Your task to perform on an android device: turn on priority inbox in the gmail app Image 0: 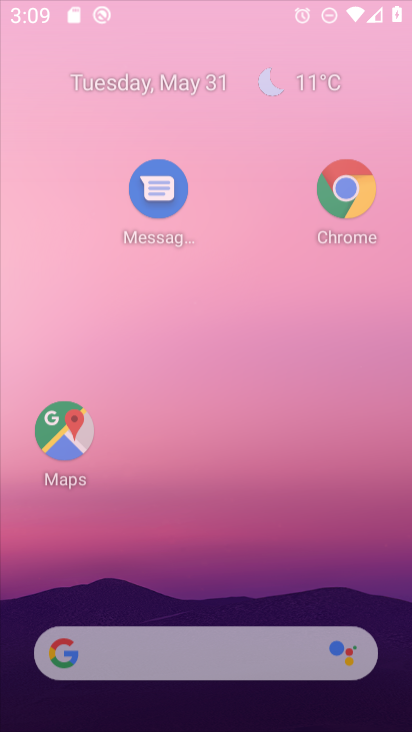
Step 0: click (175, 254)
Your task to perform on an android device: turn on priority inbox in the gmail app Image 1: 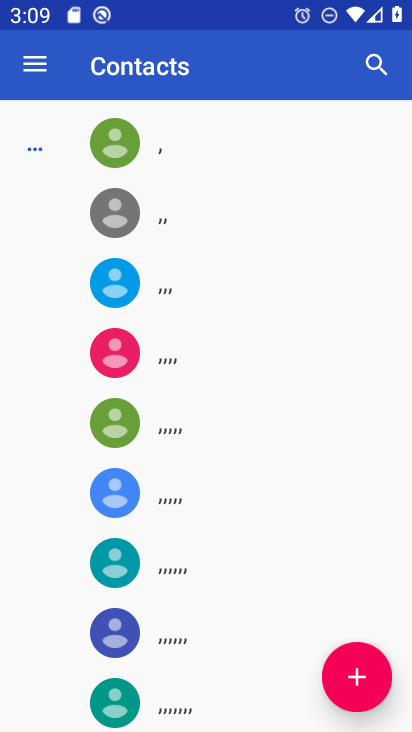
Step 1: press home button
Your task to perform on an android device: turn on priority inbox in the gmail app Image 2: 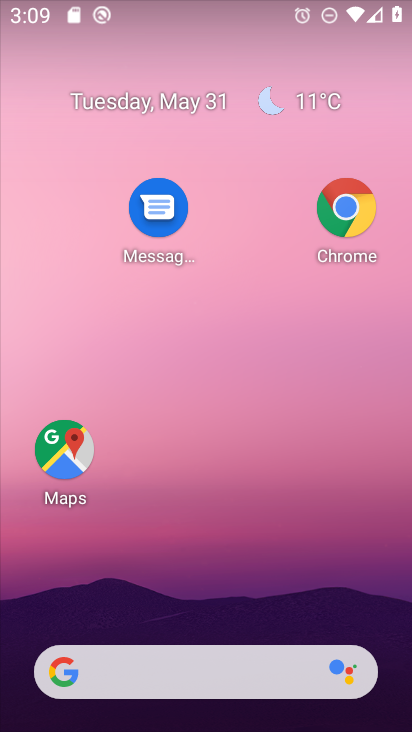
Step 2: drag from (180, 623) to (148, 204)
Your task to perform on an android device: turn on priority inbox in the gmail app Image 3: 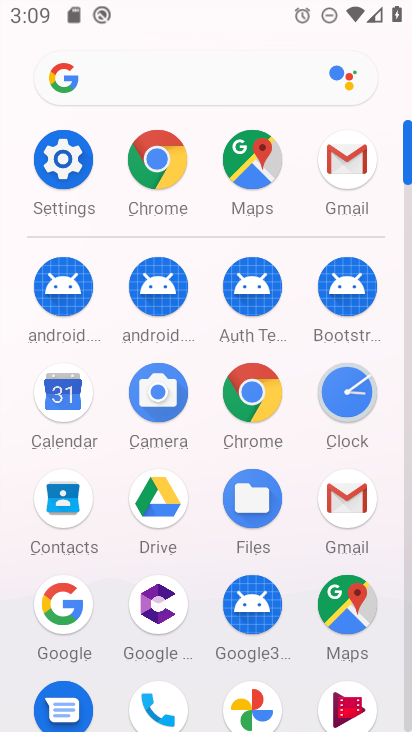
Step 3: click (343, 510)
Your task to perform on an android device: turn on priority inbox in the gmail app Image 4: 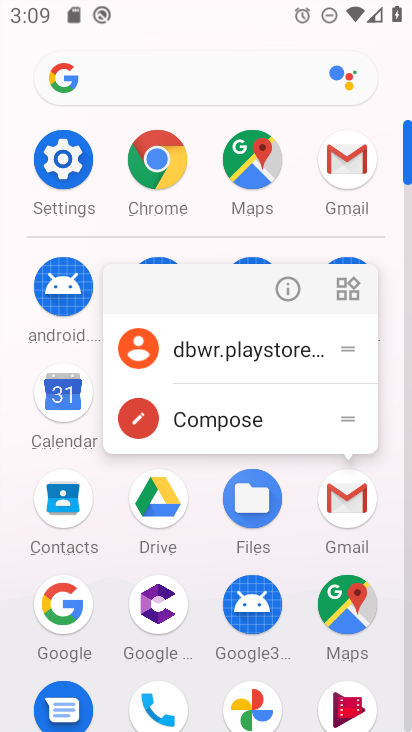
Step 4: click (282, 288)
Your task to perform on an android device: turn on priority inbox in the gmail app Image 5: 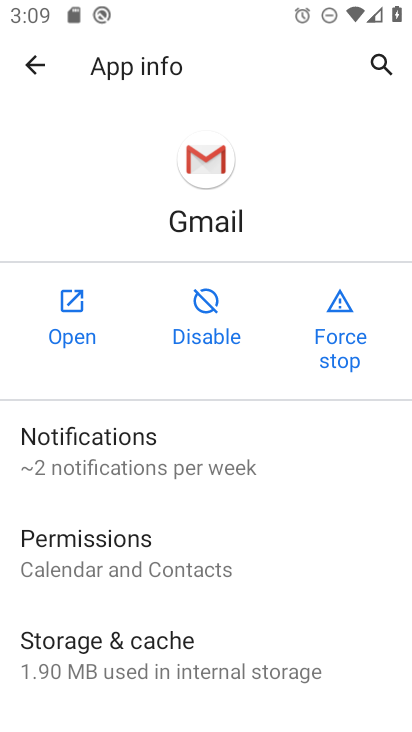
Step 5: click (72, 322)
Your task to perform on an android device: turn on priority inbox in the gmail app Image 6: 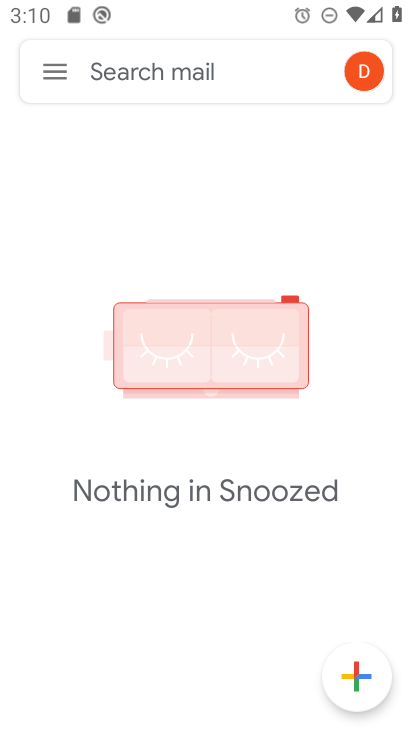
Step 6: drag from (234, 547) to (212, 443)
Your task to perform on an android device: turn on priority inbox in the gmail app Image 7: 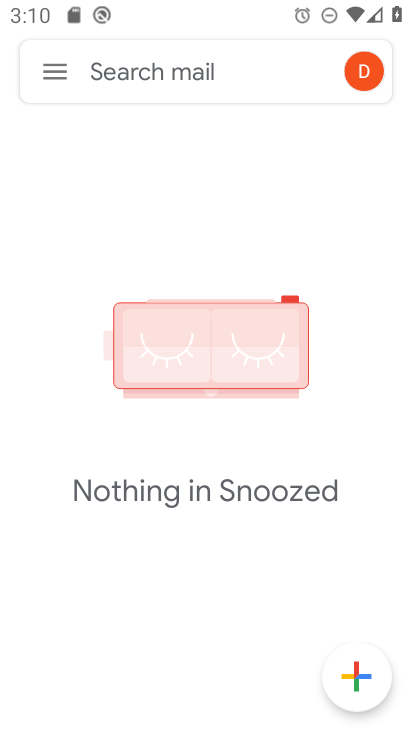
Step 7: click (53, 80)
Your task to perform on an android device: turn on priority inbox in the gmail app Image 8: 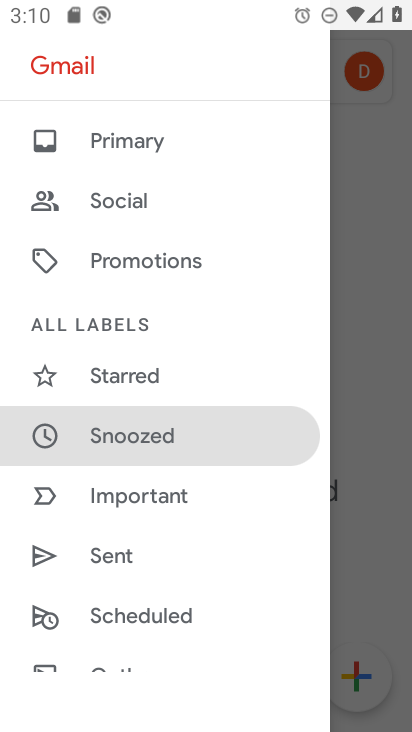
Step 8: drag from (163, 627) to (75, 138)
Your task to perform on an android device: turn on priority inbox in the gmail app Image 9: 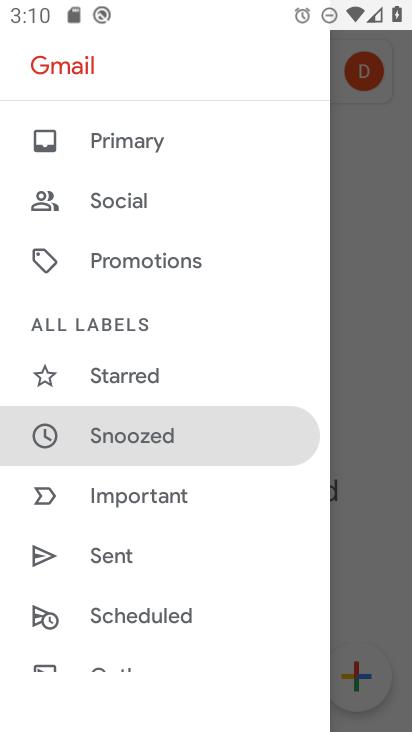
Step 9: drag from (59, 600) to (84, 254)
Your task to perform on an android device: turn on priority inbox in the gmail app Image 10: 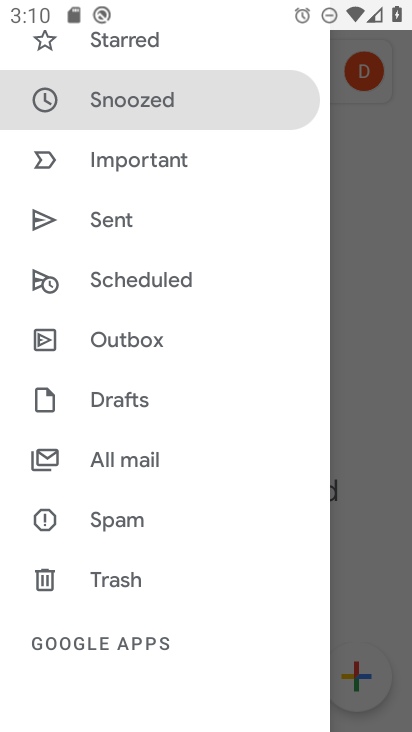
Step 10: drag from (91, 559) to (82, 196)
Your task to perform on an android device: turn on priority inbox in the gmail app Image 11: 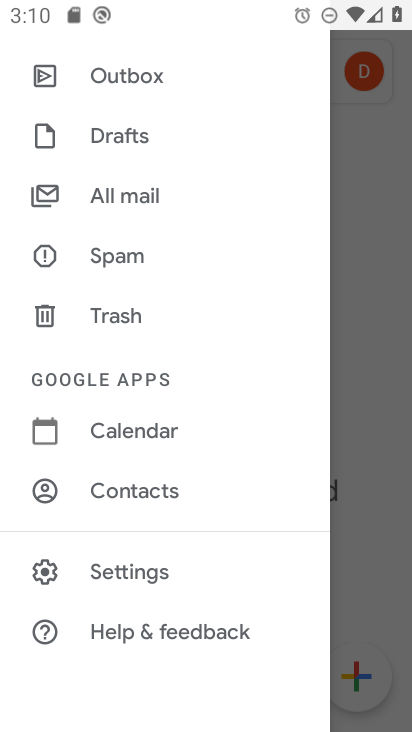
Step 11: click (116, 589)
Your task to perform on an android device: turn on priority inbox in the gmail app Image 12: 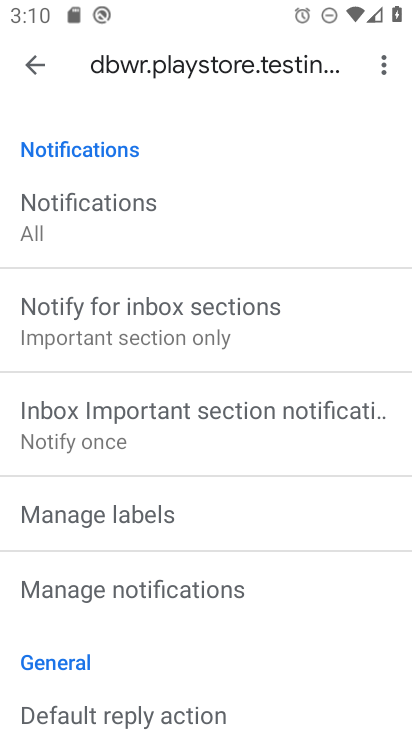
Step 12: drag from (169, 639) to (158, 359)
Your task to perform on an android device: turn on priority inbox in the gmail app Image 13: 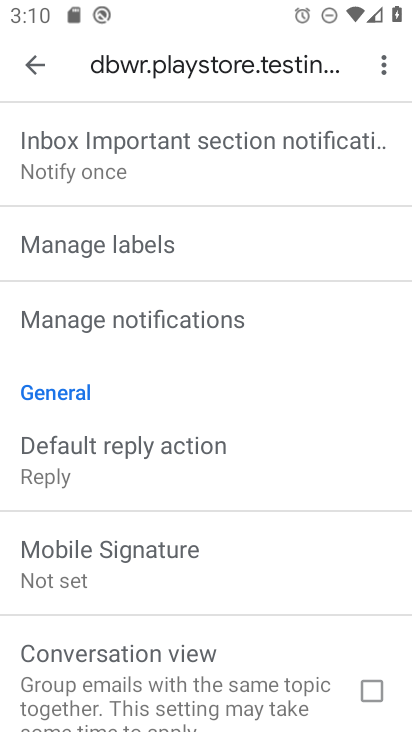
Step 13: drag from (121, 597) to (145, 292)
Your task to perform on an android device: turn on priority inbox in the gmail app Image 14: 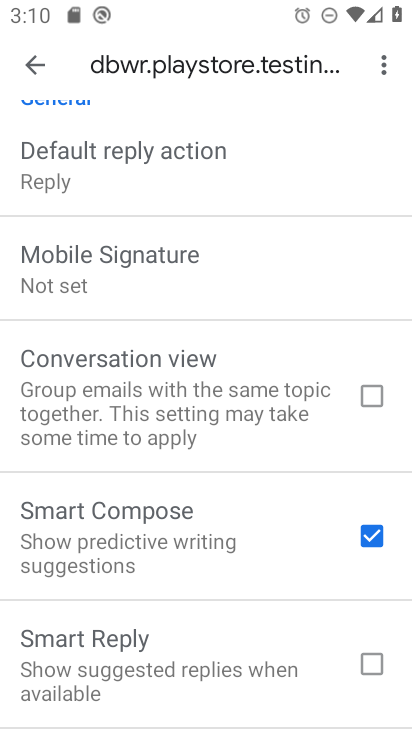
Step 14: drag from (136, 696) to (165, 449)
Your task to perform on an android device: turn on priority inbox in the gmail app Image 15: 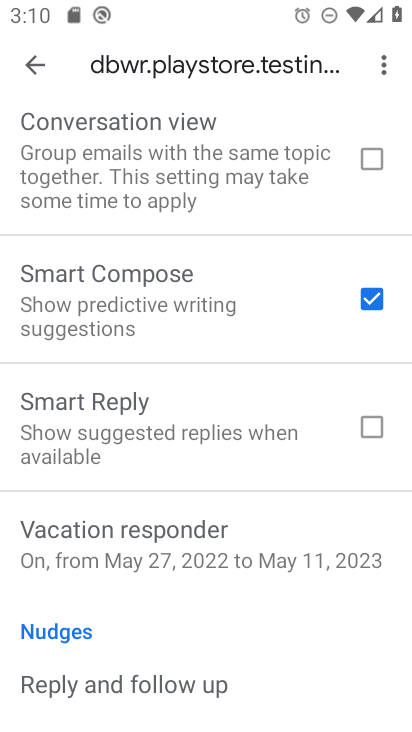
Step 15: drag from (124, 124) to (282, 712)
Your task to perform on an android device: turn on priority inbox in the gmail app Image 16: 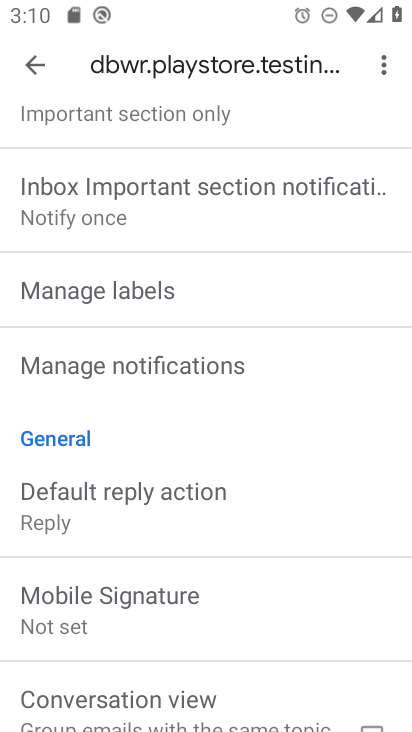
Step 16: drag from (124, 111) to (237, 673)
Your task to perform on an android device: turn on priority inbox in the gmail app Image 17: 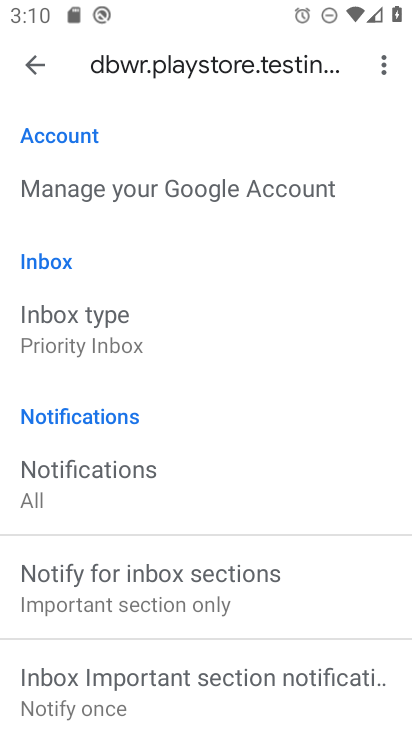
Step 17: click (72, 332)
Your task to perform on an android device: turn on priority inbox in the gmail app Image 18: 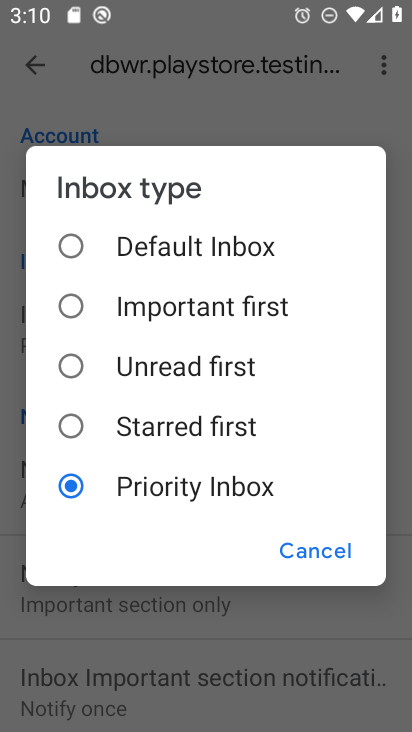
Step 18: task complete